Your task to perform on an android device: turn off location Image 0: 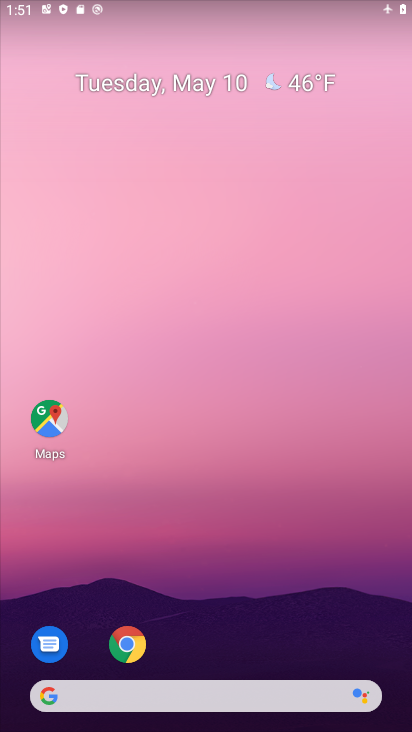
Step 0: drag from (195, 659) to (250, 200)
Your task to perform on an android device: turn off location Image 1: 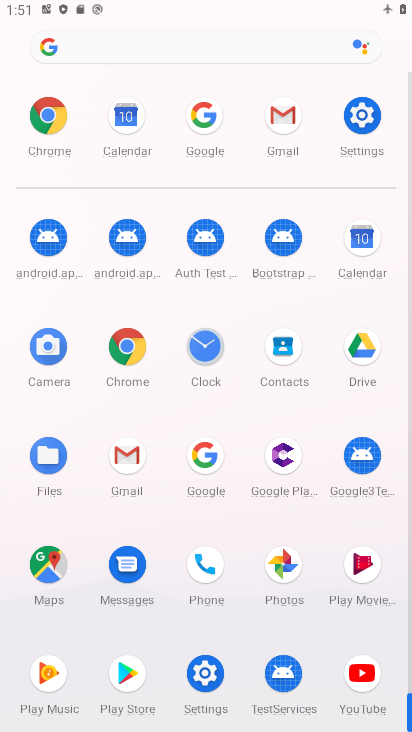
Step 1: click (381, 121)
Your task to perform on an android device: turn off location Image 2: 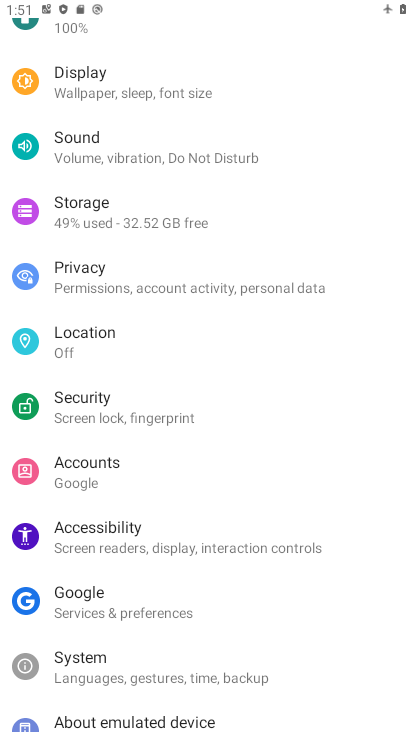
Step 2: click (127, 348)
Your task to perform on an android device: turn off location Image 3: 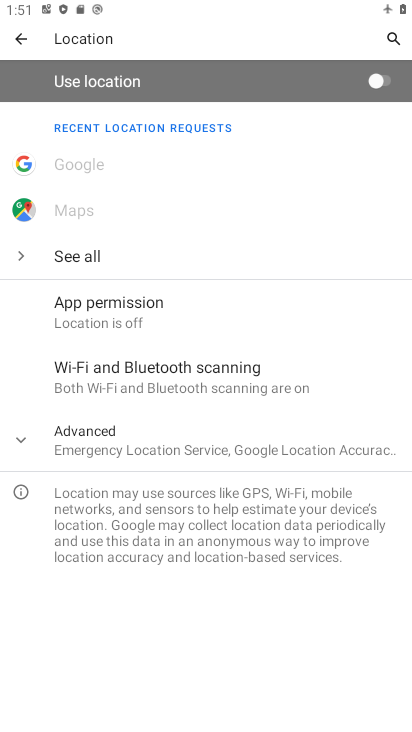
Step 3: task complete